Your task to perform on an android device: Search for Mexican restaurants on Maps Image 0: 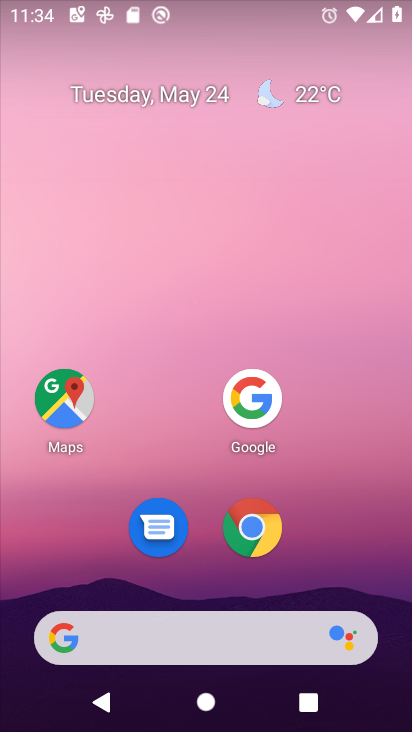
Step 0: click (58, 413)
Your task to perform on an android device: Search for Mexican restaurants on Maps Image 1: 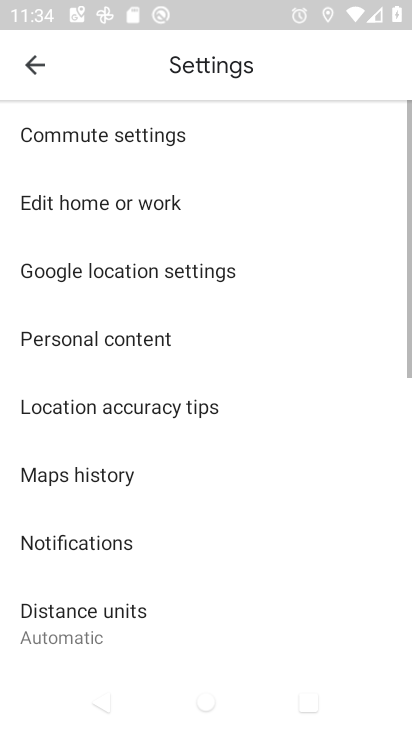
Step 1: click (38, 66)
Your task to perform on an android device: Search for Mexican restaurants on Maps Image 2: 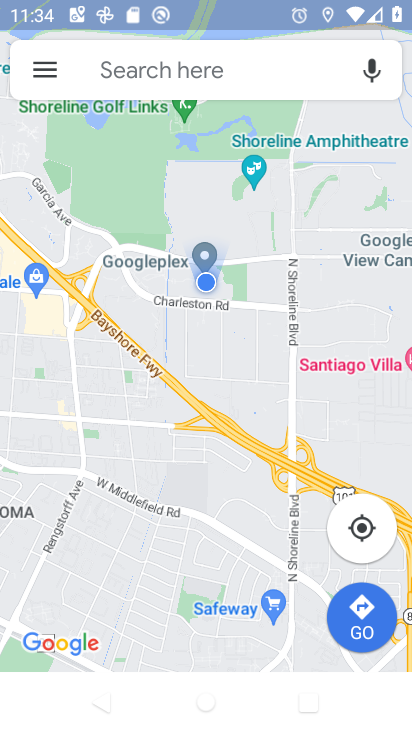
Step 2: click (178, 68)
Your task to perform on an android device: Search for Mexican restaurants on Maps Image 3: 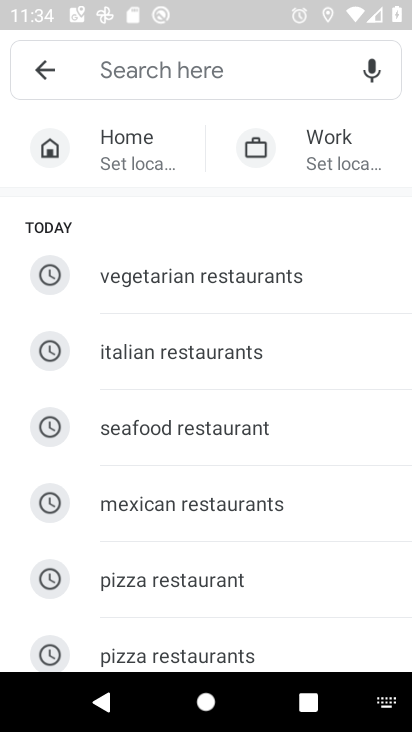
Step 3: click (176, 519)
Your task to perform on an android device: Search for Mexican restaurants on Maps Image 4: 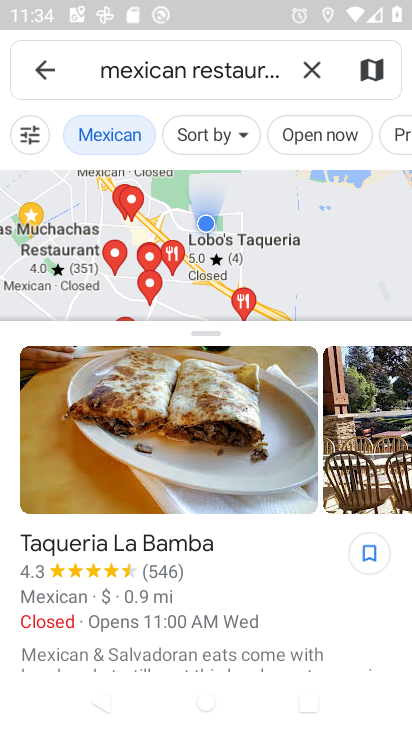
Step 4: task complete